Your task to perform on an android device: turn on the 12-hour format for clock Image 0: 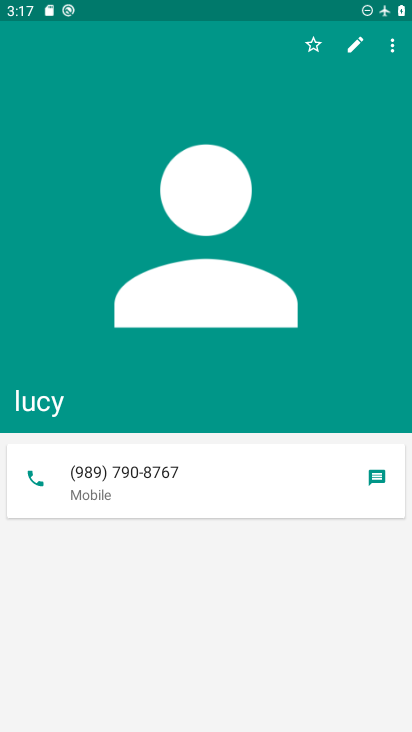
Step 0: press home button
Your task to perform on an android device: turn on the 12-hour format for clock Image 1: 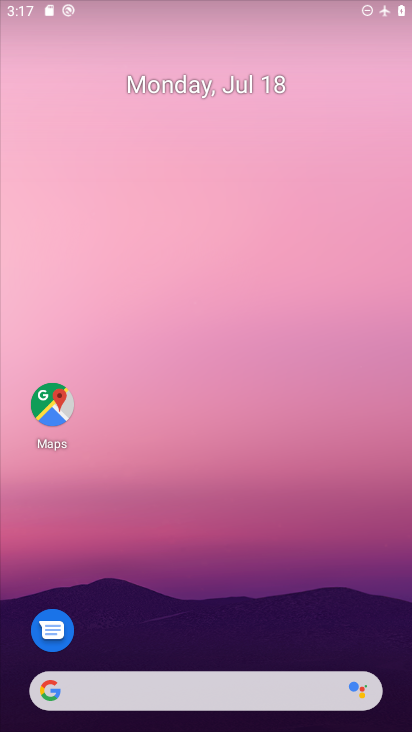
Step 1: drag from (254, 511) to (332, 49)
Your task to perform on an android device: turn on the 12-hour format for clock Image 2: 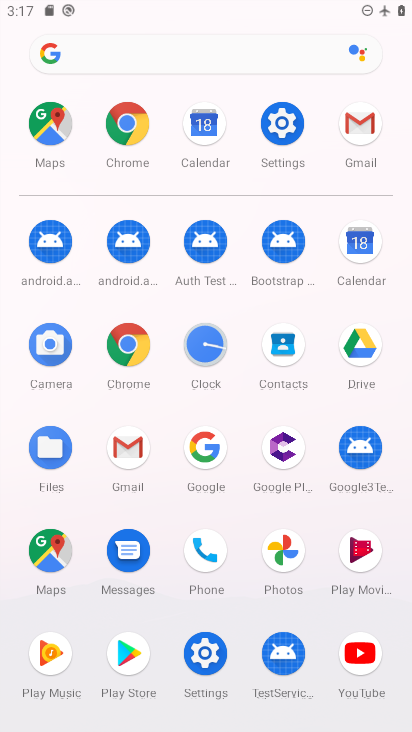
Step 2: click (209, 343)
Your task to perform on an android device: turn on the 12-hour format for clock Image 3: 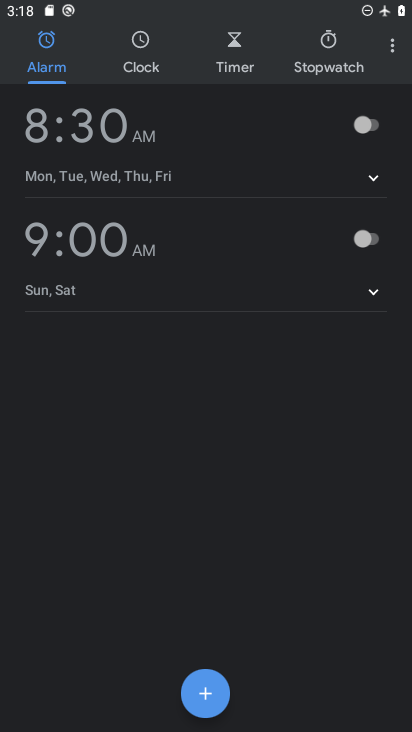
Step 3: click (398, 45)
Your task to perform on an android device: turn on the 12-hour format for clock Image 4: 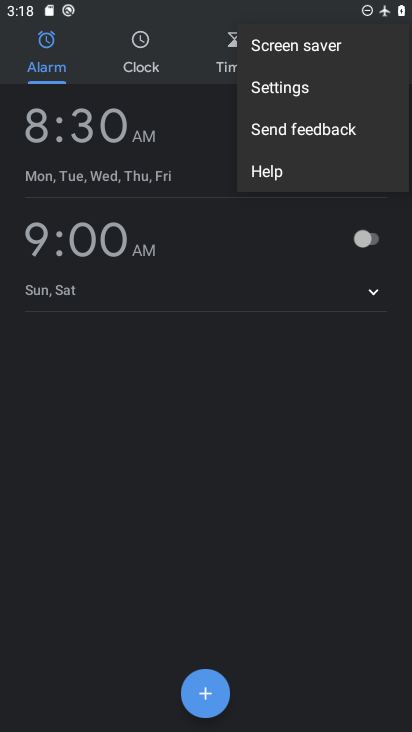
Step 4: click (303, 101)
Your task to perform on an android device: turn on the 12-hour format for clock Image 5: 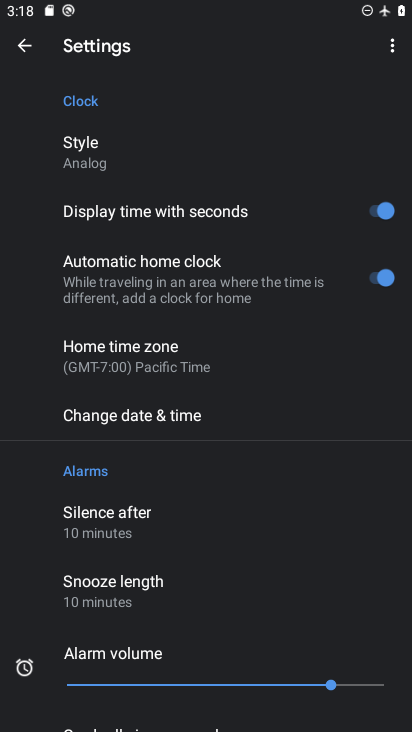
Step 5: click (162, 423)
Your task to perform on an android device: turn on the 12-hour format for clock Image 6: 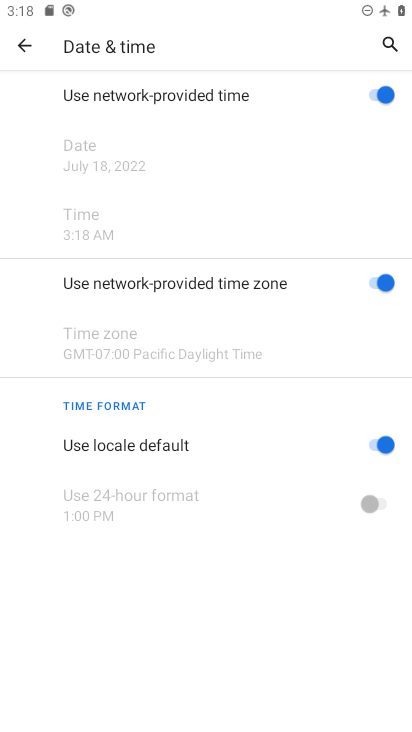
Step 6: click (376, 444)
Your task to perform on an android device: turn on the 12-hour format for clock Image 7: 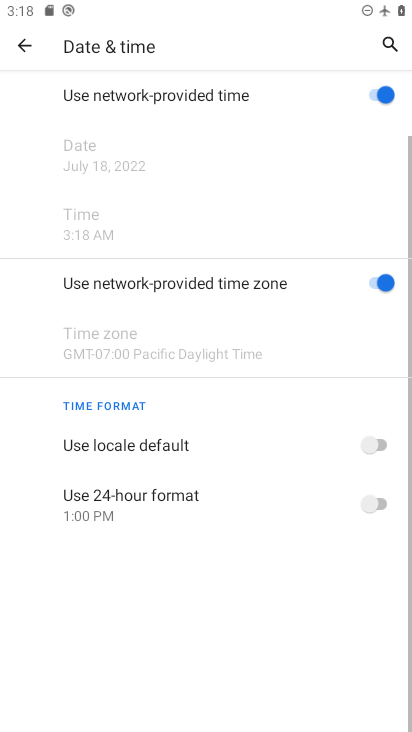
Step 7: task complete